Your task to perform on an android device: Go to accessibility settings Image 0: 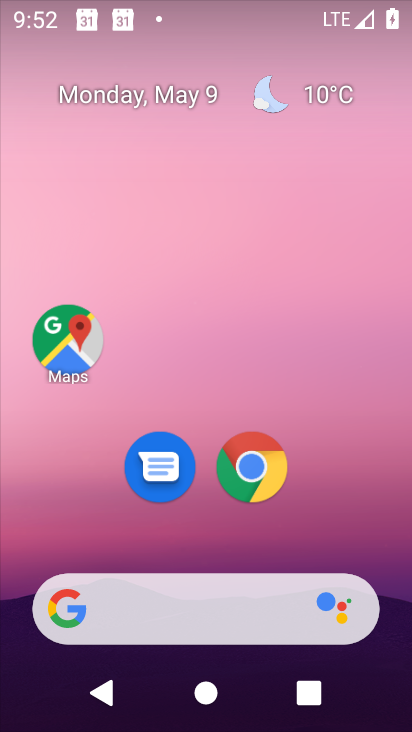
Step 0: drag from (363, 565) to (347, 20)
Your task to perform on an android device: Go to accessibility settings Image 1: 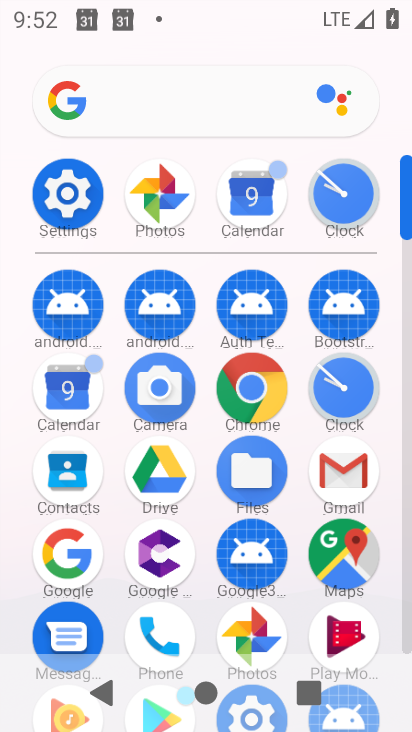
Step 1: click (66, 196)
Your task to perform on an android device: Go to accessibility settings Image 2: 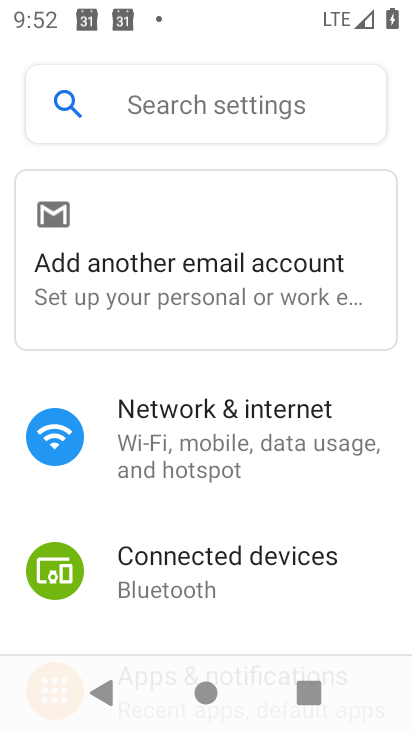
Step 2: drag from (329, 659) to (289, 14)
Your task to perform on an android device: Go to accessibility settings Image 3: 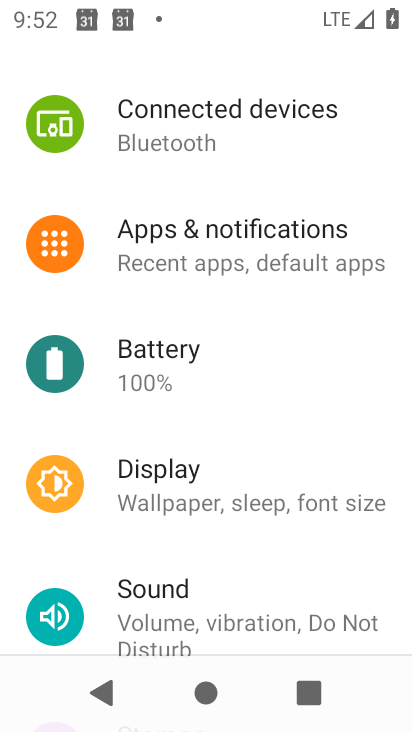
Step 3: drag from (190, 585) to (188, 11)
Your task to perform on an android device: Go to accessibility settings Image 4: 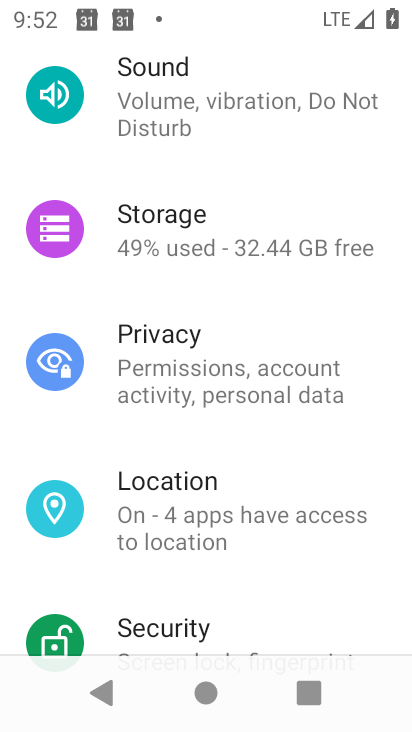
Step 4: drag from (178, 534) to (148, 57)
Your task to perform on an android device: Go to accessibility settings Image 5: 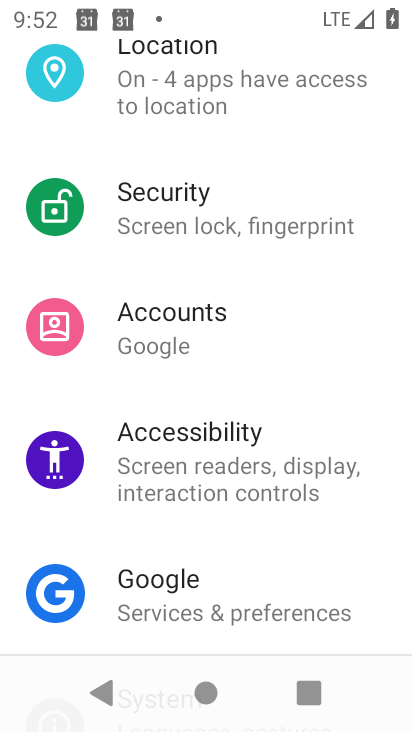
Step 5: click (158, 463)
Your task to perform on an android device: Go to accessibility settings Image 6: 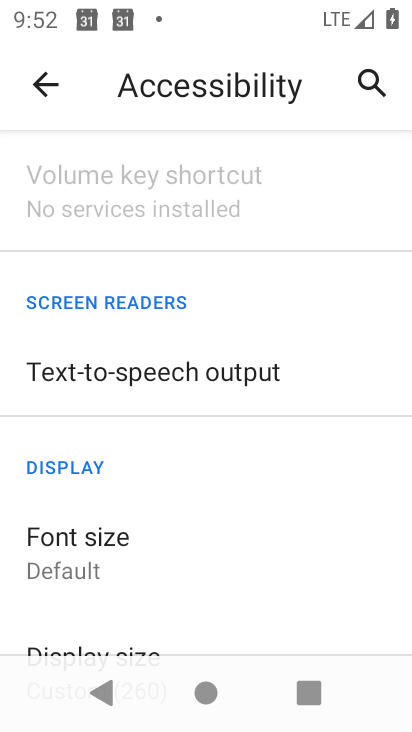
Step 6: task complete